Your task to perform on an android device: Open wifi settings Image 0: 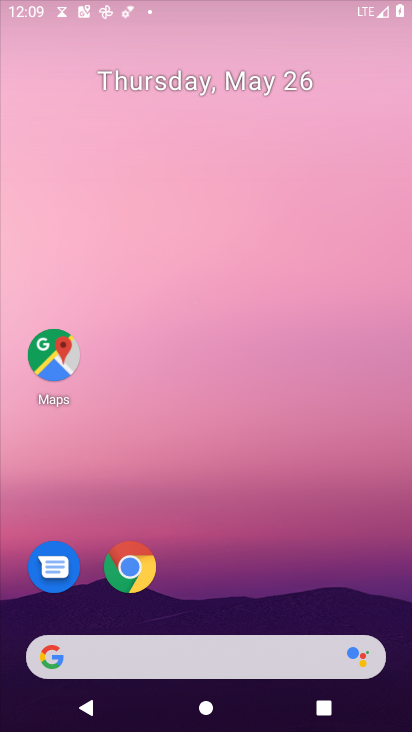
Step 0: drag from (269, 495) to (269, 32)
Your task to perform on an android device: Open wifi settings Image 1: 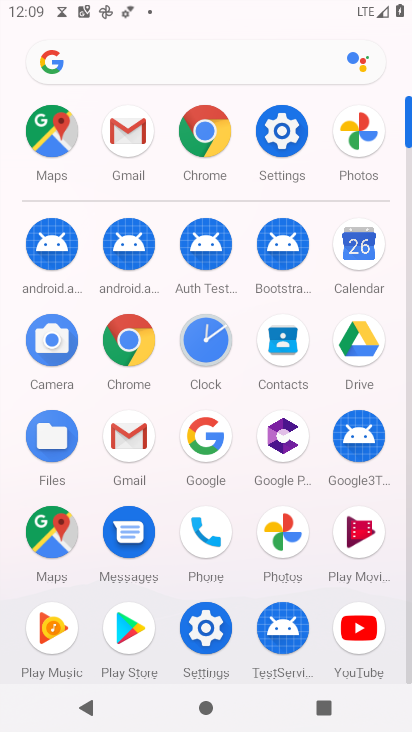
Step 1: click (258, 140)
Your task to perform on an android device: Open wifi settings Image 2: 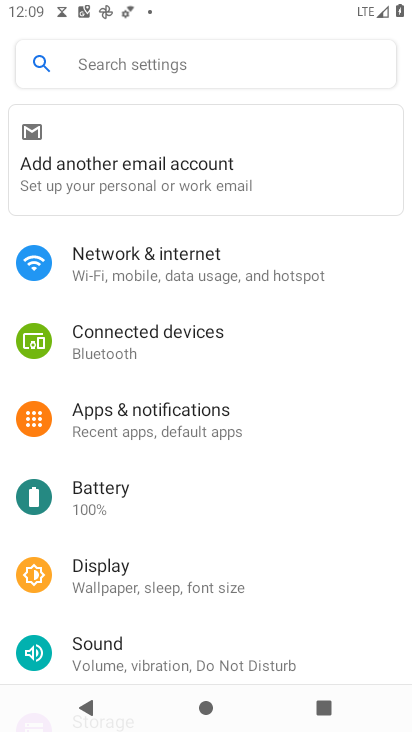
Step 2: click (203, 261)
Your task to perform on an android device: Open wifi settings Image 3: 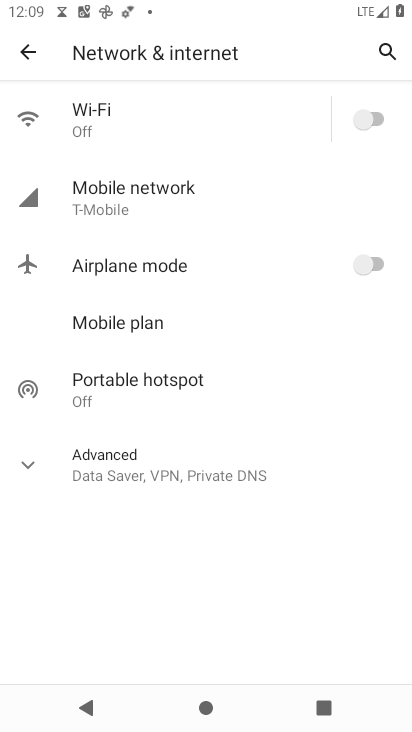
Step 3: click (141, 99)
Your task to perform on an android device: Open wifi settings Image 4: 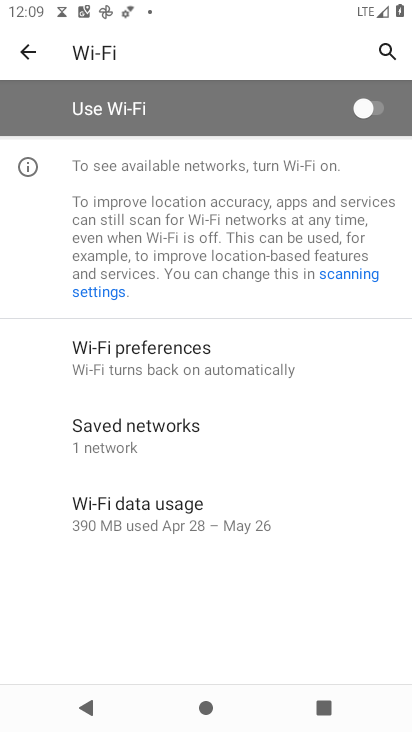
Step 4: task complete